Your task to perform on an android device: Open eBay Image 0: 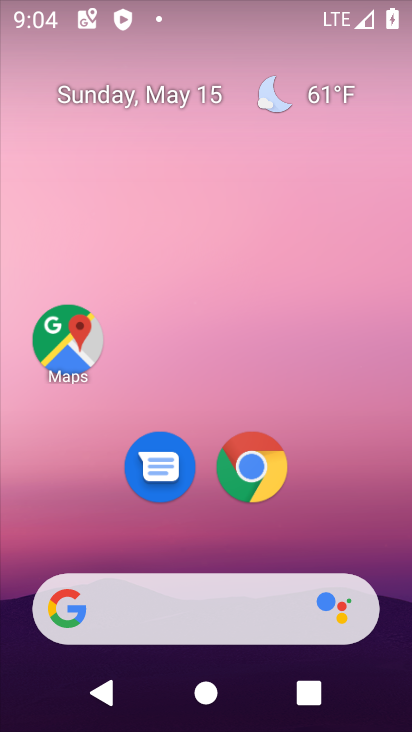
Step 0: click (254, 473)
Your task to perform on an android device: Open eBay Image 1: 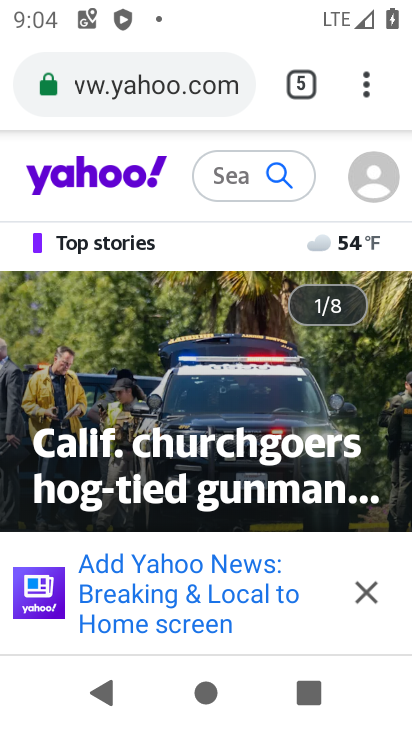
Step 1: click (158, 102)
Your task to perform on an android device: Open eBay Image 2: 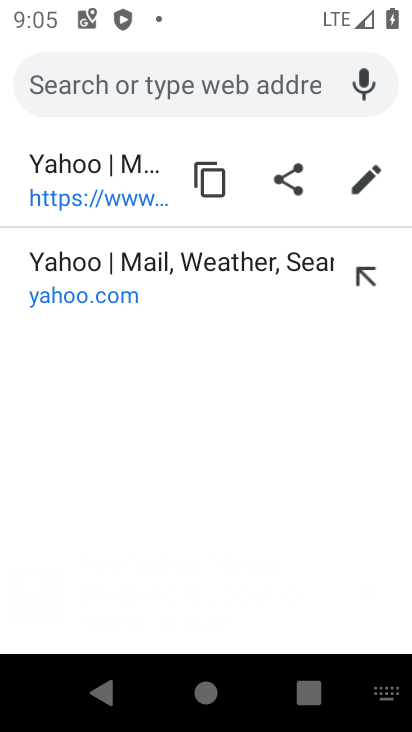
Step 2: type "ebay"
Your task to perform on an android device: Open eBay Image 3: 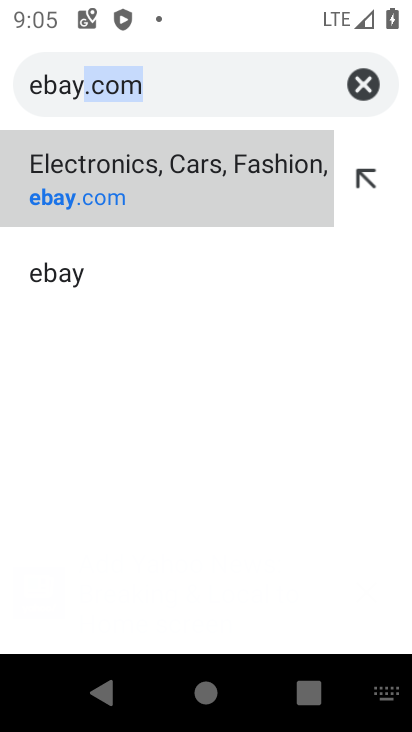
Step 3: click (120, 161)
Your task to perform on an android device: Open eBay Image 4: 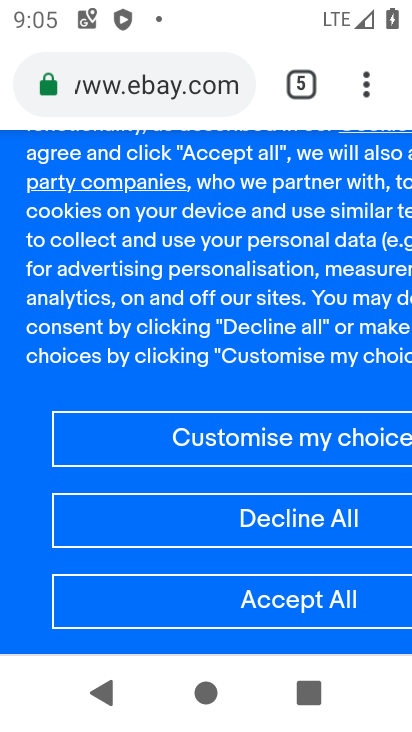
Step 4: task complete